Your task to perform on an android device: set default search engine in the chrome app Image 0: 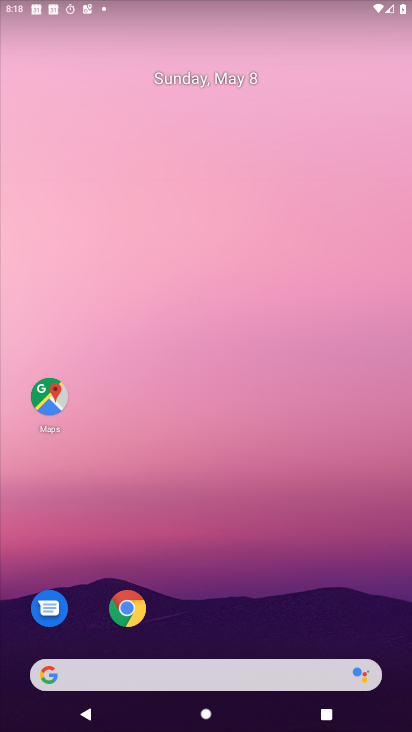
Step 0: click (123, 618)
Your task to perform on an android device: set default search engine in the chrome app Image 1: 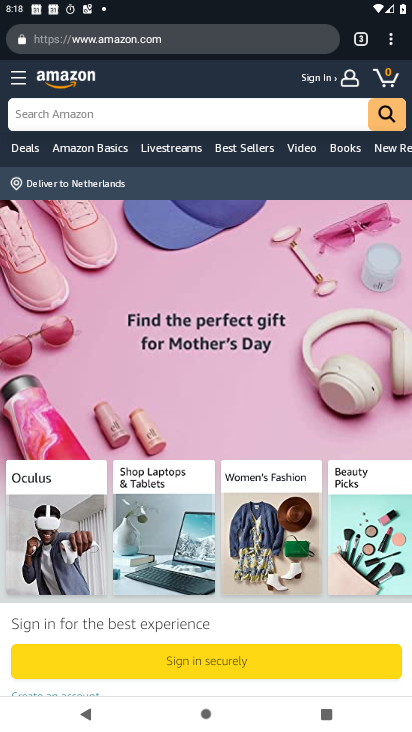
Step 1: drag from (393, 50) to (270, 473)
Your task to perform on an android device: set default search engine in the chrome app Image 2: 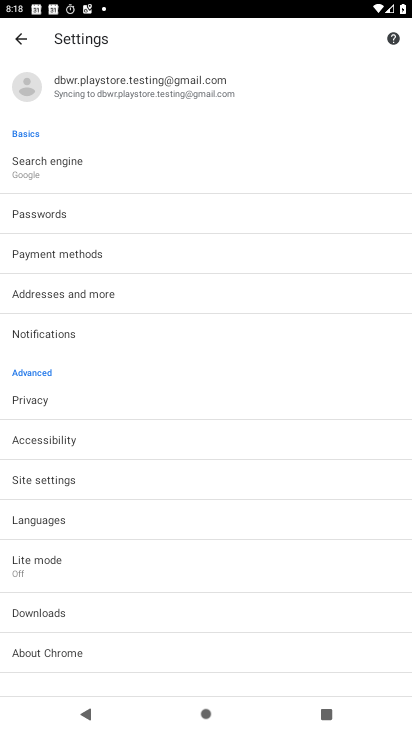
Step 2: click (85, 164)
Your task to perform on an android device: set default search engine in the chrome app Image 3: 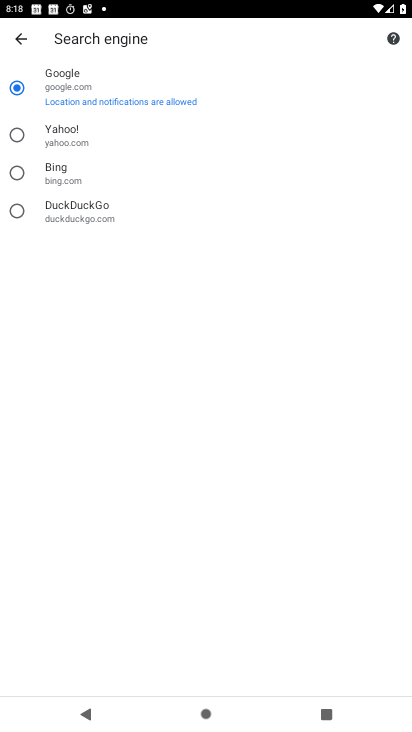
Step 3: click (91, 135)
Your task to perform on an android device: set default search engine in the chrome app Image 4: 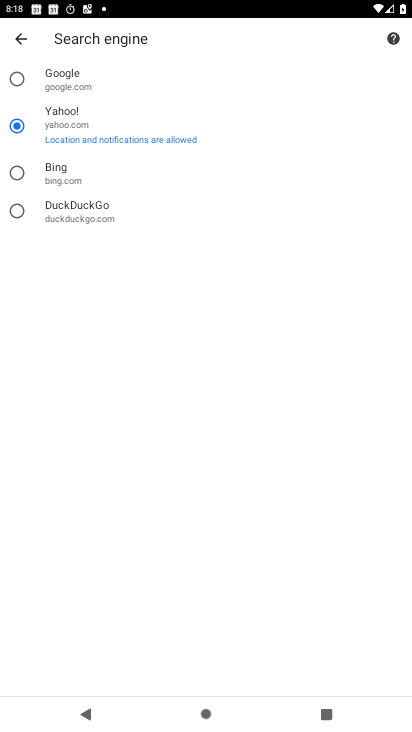
Step 4: task complete